Your task to perform on an android device: Open battery settings Image 0: 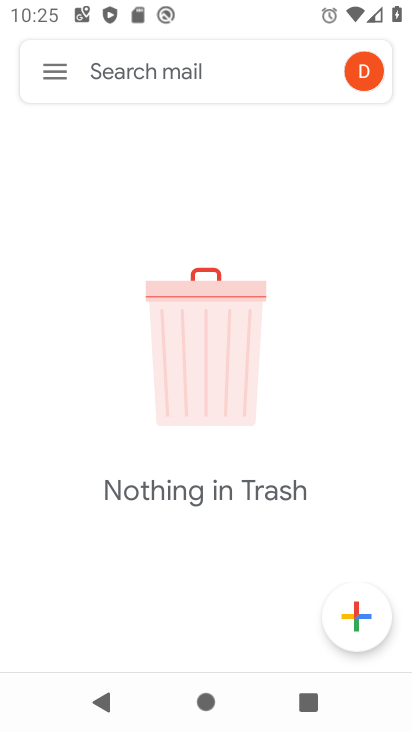
Step 0: press home button
Your task to perform on an android device: Open battery settings Image 1: 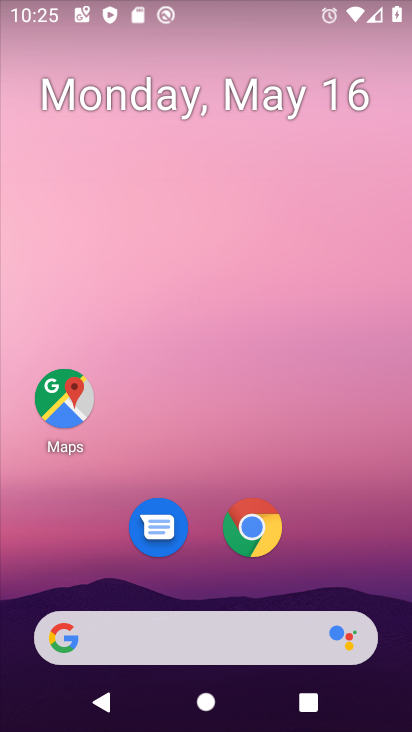
Step 1: drag from (350, 588) to (264, 1)
Your task to perform on an android device: Open battery settings Image 2: 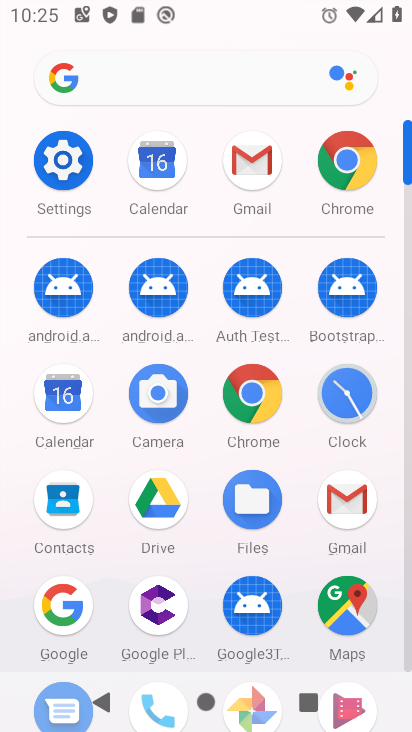
Step 2: click (70, 161)
Your task to perform on an android device: Open battery settings Image 3: 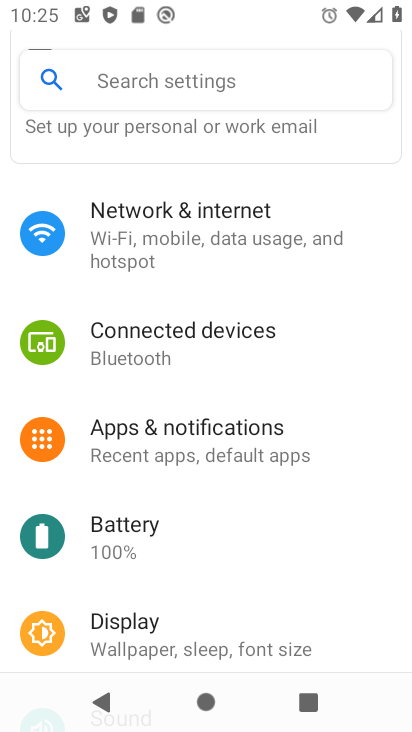
Step 3: click (112, 531)
Your task to perform on an android device: Open battery settings Image 4: 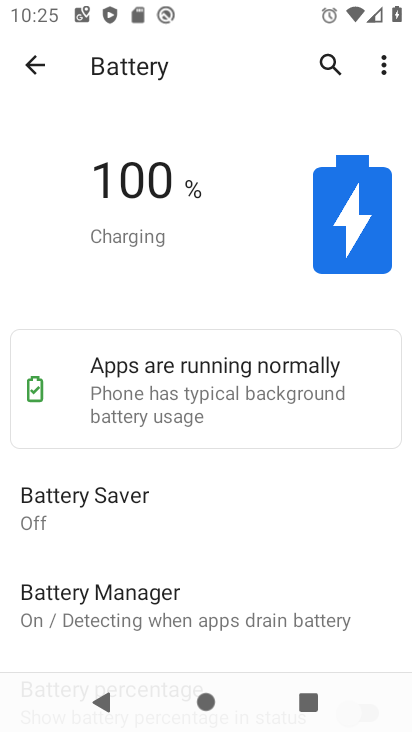
Step 4: task complete